Your task to perform on an android device: Go to accessibility settings Image 0: 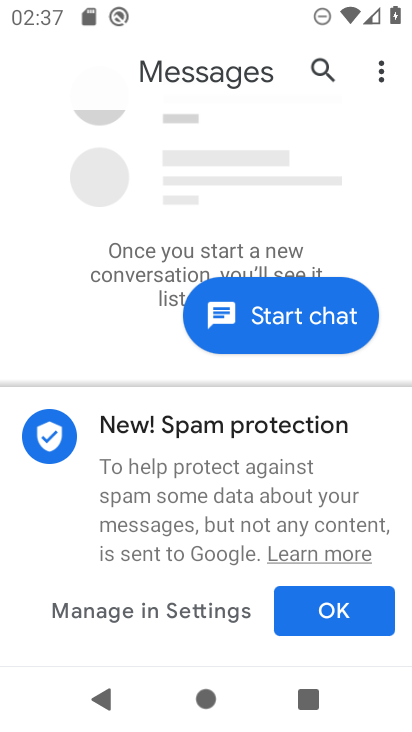
Step 0: press home button
Your task to perform on an android device: Go to accessibility settings Image 1: 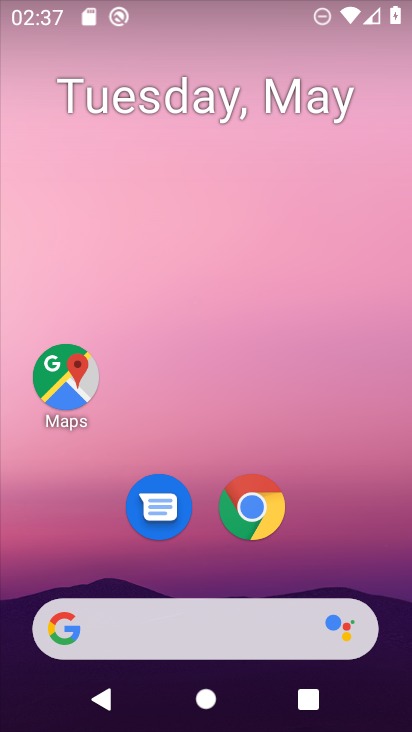
Step 1: drag from (190, 583) to (215, 201)
Your task to perform on an android device: Go to accessibility settings Image 2: 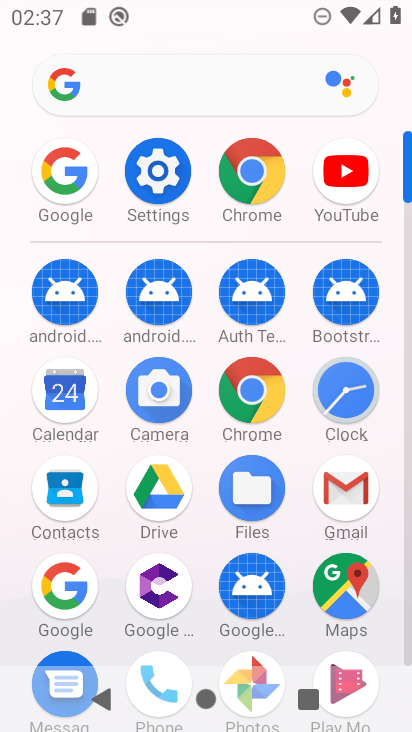
Step 2: click (138, 202)
Your task to perform on an android device: Go to accessibility settings Image 3: 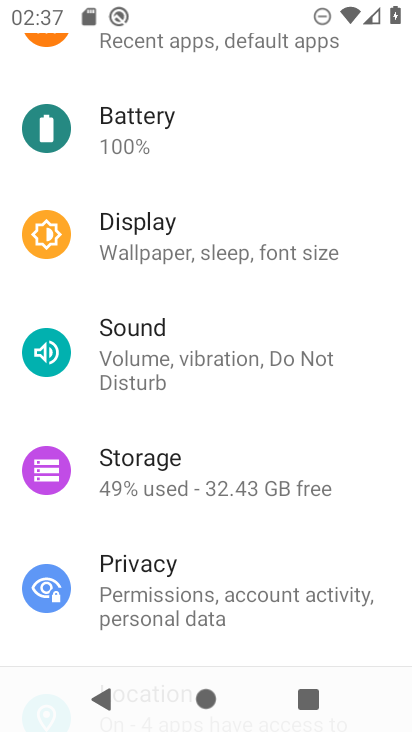
Step 3: drag from (203, 575) to (241, 227)
Your task to perform on an android device: Go to accessibility settings Image 4: 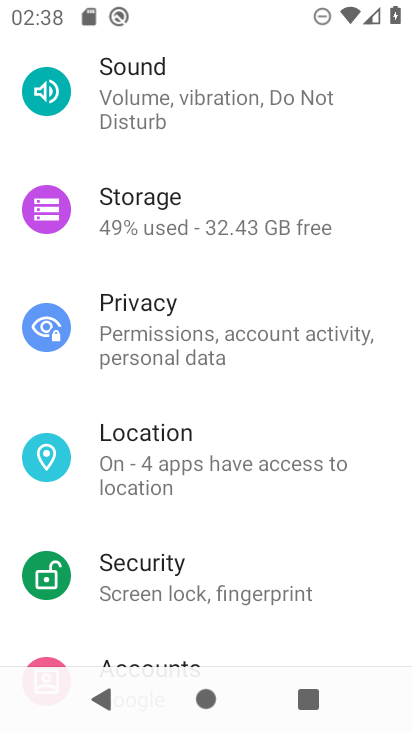
Step 4: drag from (216, 528) to (227, 312)
Your task to perform on an android device: Go to accessibility settings Image 5: 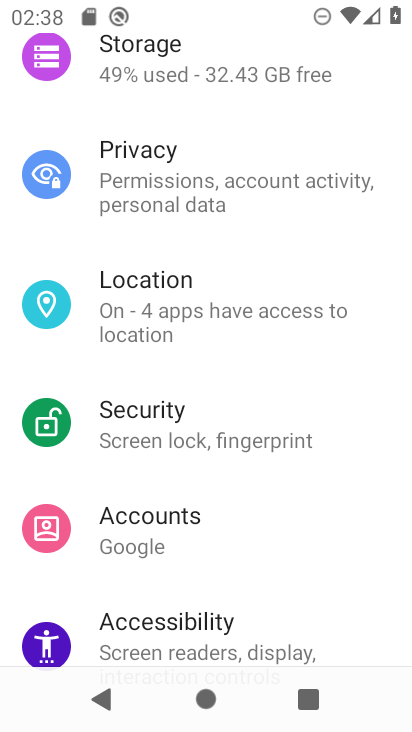
Step 5: click (201, 628)
Your task to perform on an android device: Go to accessibility settings Image 6: 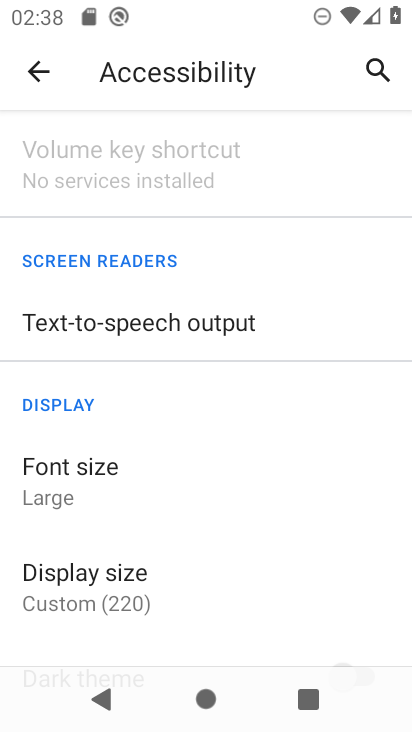
Step 6: task complete